Your task to perform on an android device: Is it going to rain today? Image 0: 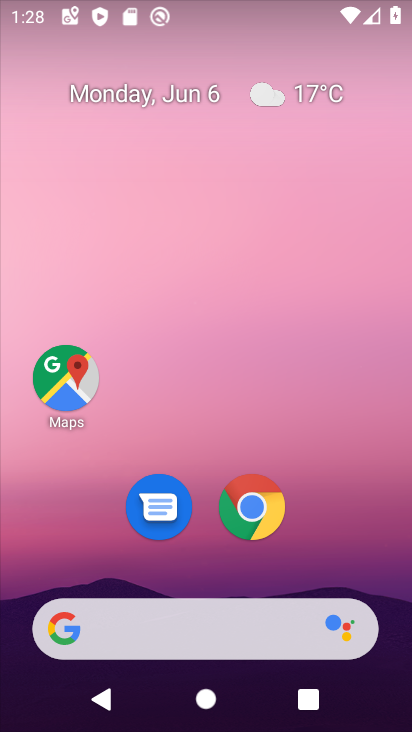
Step 0: drag from (386, 540) to (289, 27)
Your task to perform on an android device: Is it going to rain today? Image 1: 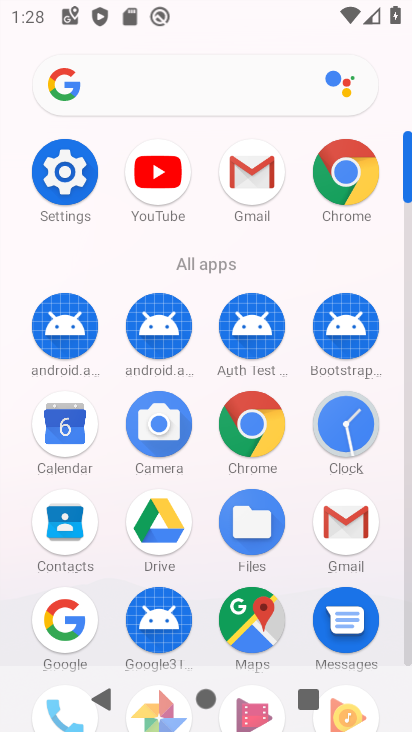
Step 1: drag from (27, 640) to (6, 324)
Your task to perform on an android device: Is it going to rain today? Image 2: 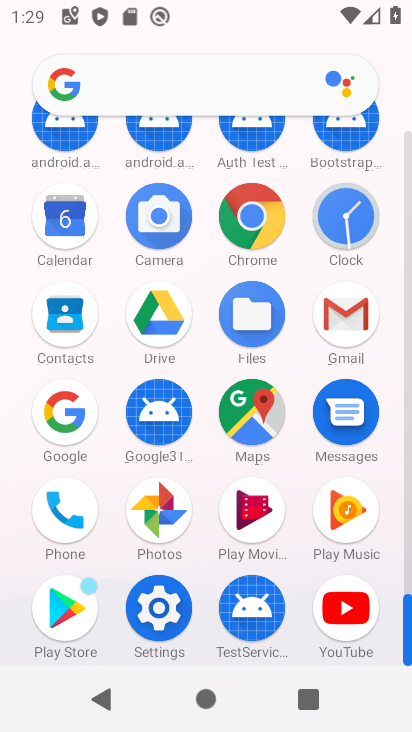
Step 2: click (258, 211)
Your task to perform on an android device: Is it going to rain today? Image 3: 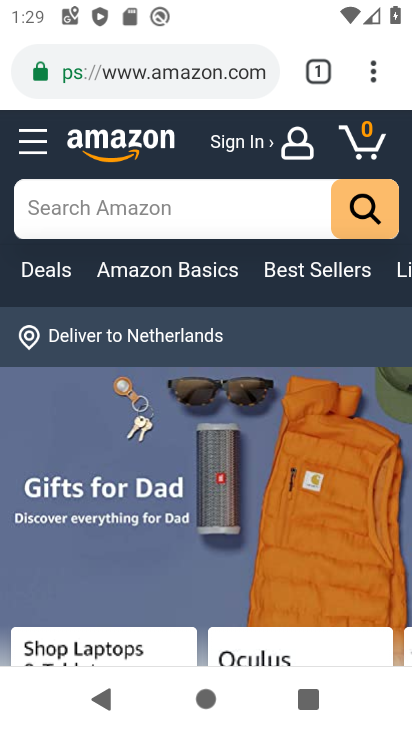
Step 3: click (152, 65)
Your task to perform on an android device: Is it going to rain today? Image 4: 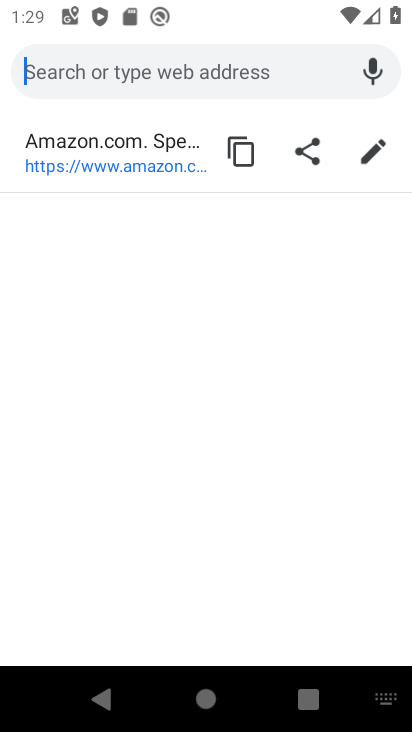
Step 4: type "Is it going to rain today?"
Your task to perform on an android device: Is it going to rain today? Image 5: 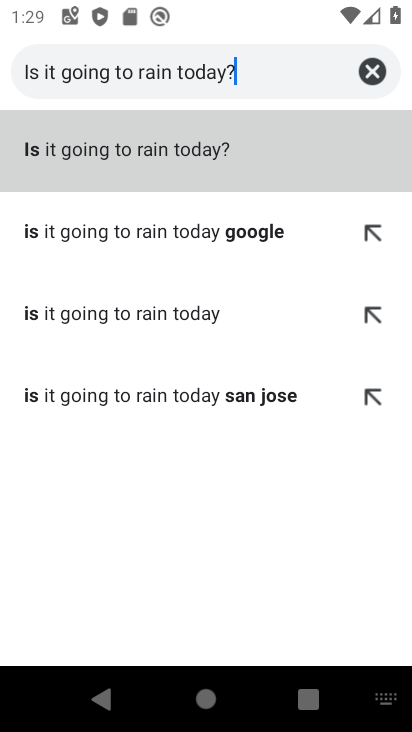
Step 5: type ""
Your task to perform on an android device: Is it going to rain today? Image 6: 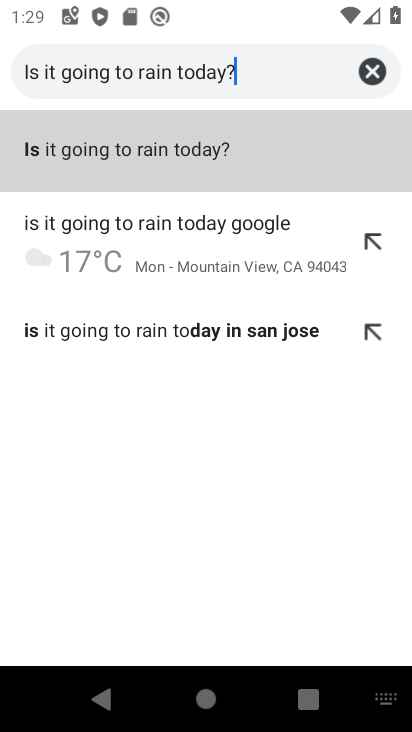
Step 6: click (159, 148)
Your task to perform on an android device: Is it going to rain today? Image 7: 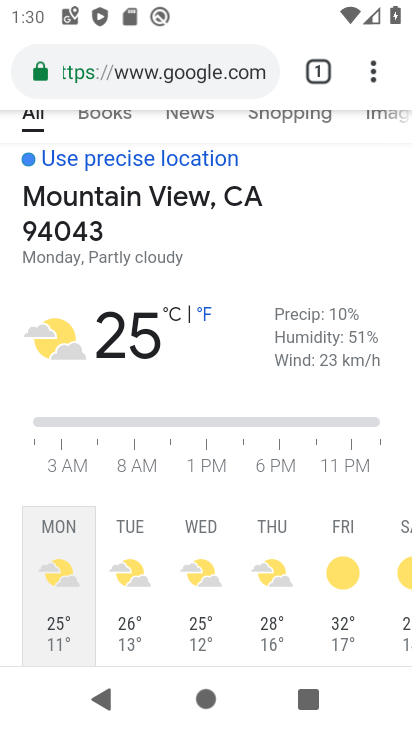
Step 7: task complete